Your task to perform on an android device: Open calendar and show me the third week of next month Image 0: 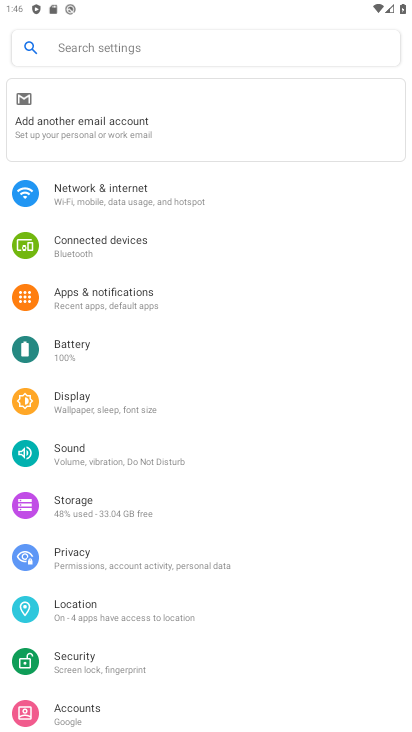
Step 0: press back button
Your task to perform on an android device: Open calendar and show me the third week of next month Image 1: 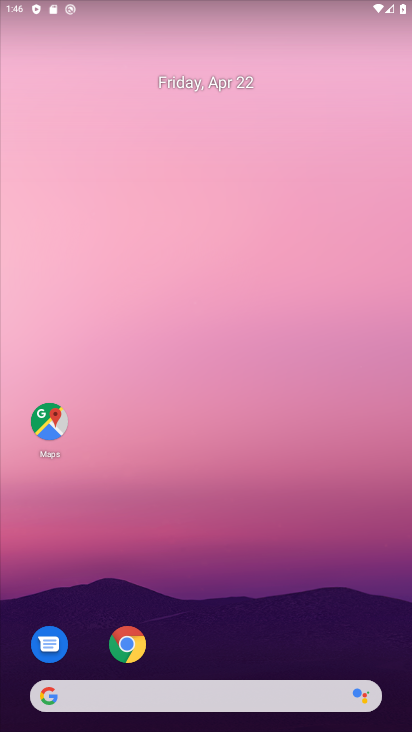
Step 1: drag from (251, 587) to (180, 170)
Your task to perform on an android device: Open calendar and show me the third week of next month Image 2: 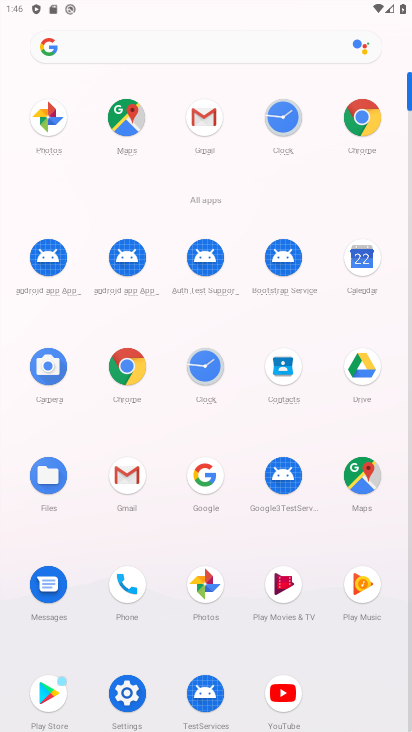
Step 2: click (365, 271)
Your task to perform on an android device: Open calendar and show me the third week of next month Image 3: 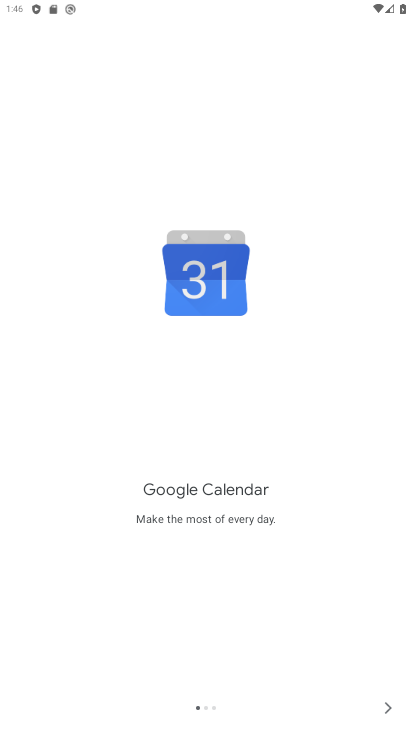
Step 3: click (390, 712)
Your task to perform on an android device: Open calendar and show me the third week of next month Image 4: 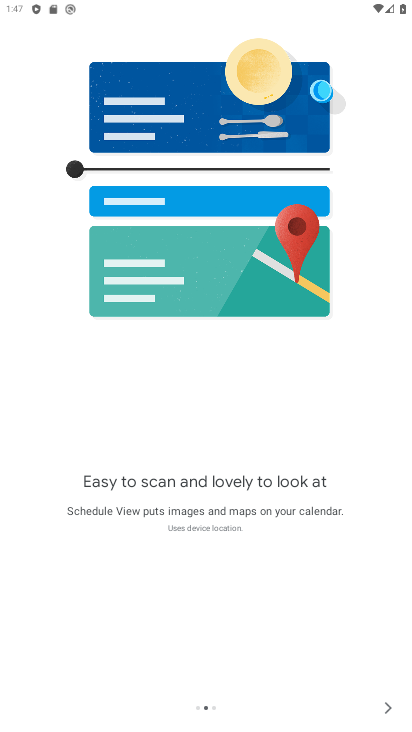
Step 4: click (385, 710)
Your task to perform on an android device: Open calendar and show me the third week of next month Image 5: 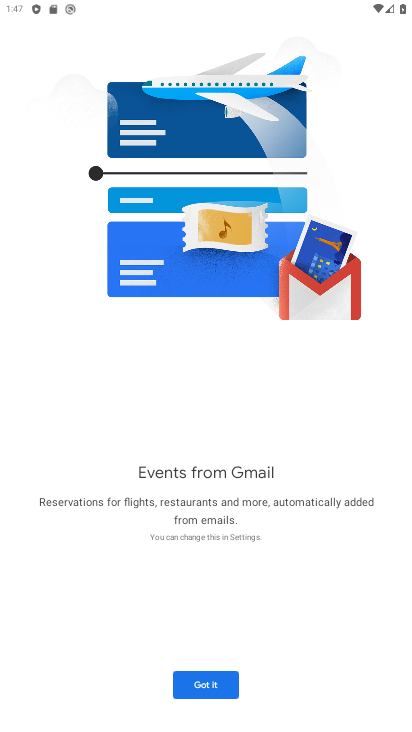
Step 5: click (209, 673)
Your task to perform on an android device: Open calendar and show me the third week of next month Image 6: 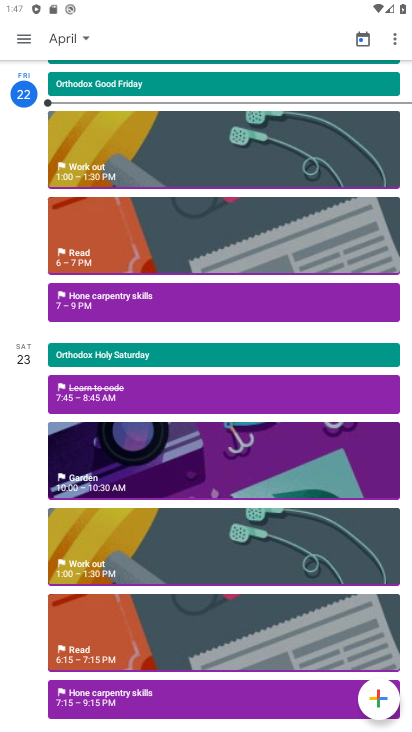
Step 6: click (23, 40)
Your task to perform on an android device: Open calendar and show me the third week of next month Image 7: 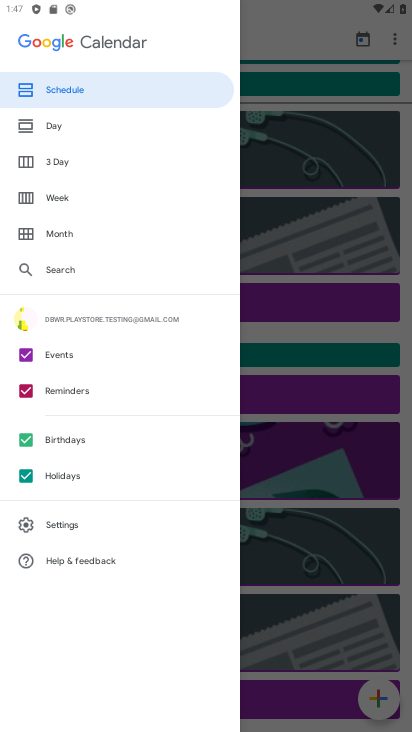
Step 7: click (66, 205)
Your task to perform on an android device: Open calendar and show me the third week of next month Image 8: 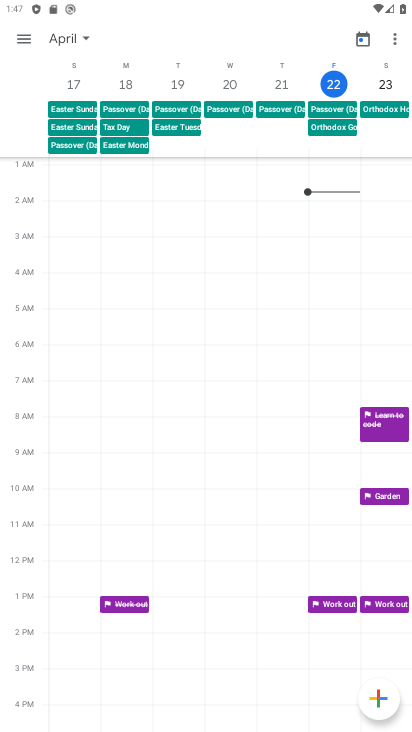
Step 8: click (72, 40)
Your task to perform on an android device: Open calendar and show me the third week of next month Image 9: 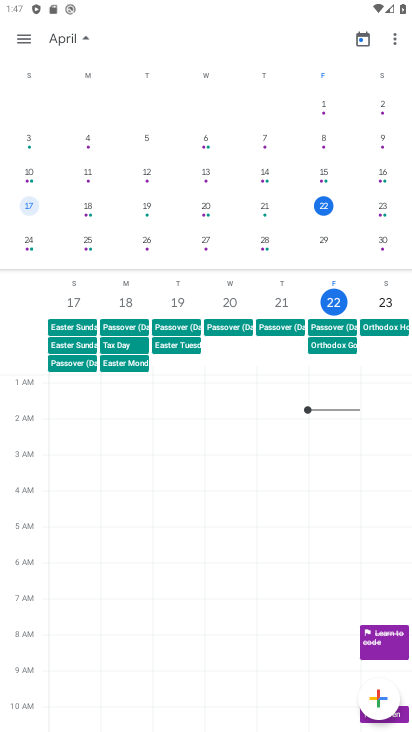
Step 9: drag from (361, 183) to (0, 156)
Your task to perform on an android device: Open calendar and show me the third week of next month Image 10: 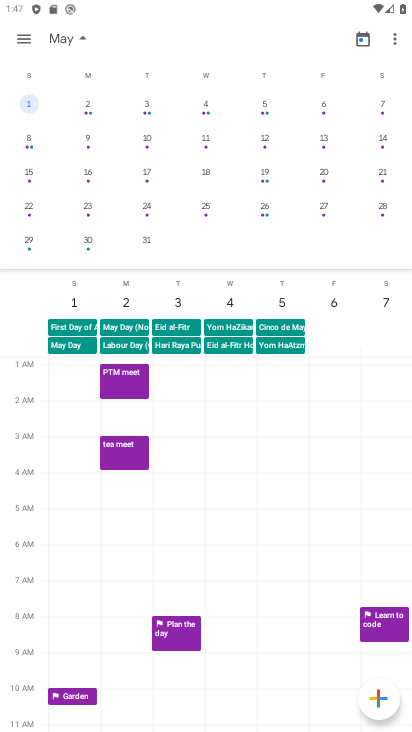
Step 10: click (31, 175)
Your task to perform on an android device: Open calendar and show me the third week of next month Image 11: 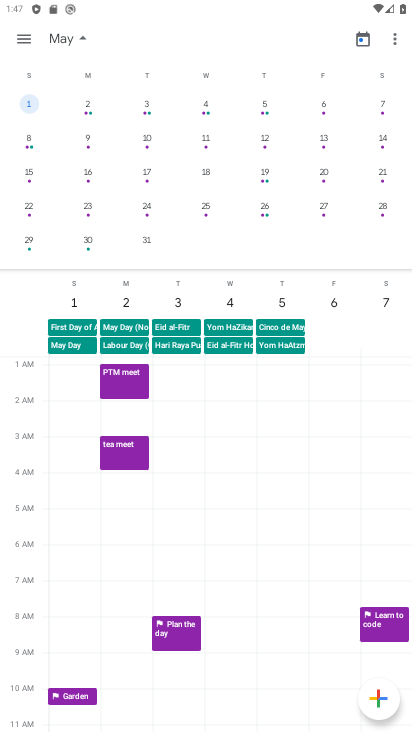
Step 11: click (29, 177)
Your task to perform on an android device: Open calendar and show me the third week of next month Image 12: 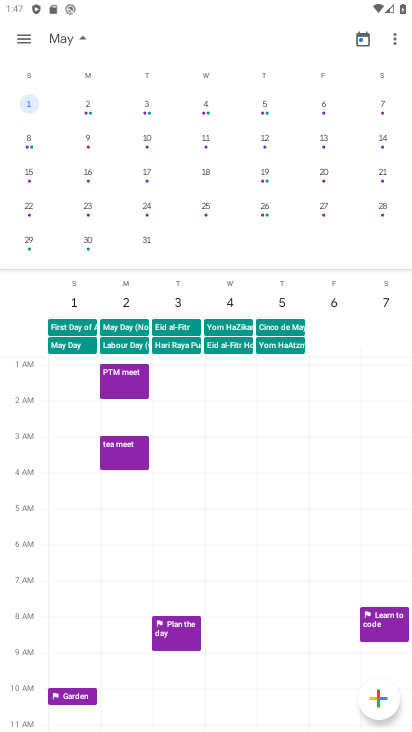
Step 12: click (29, 172)
Your task to perform on an android device: Open calendar and show me the third week of next month Image 13: 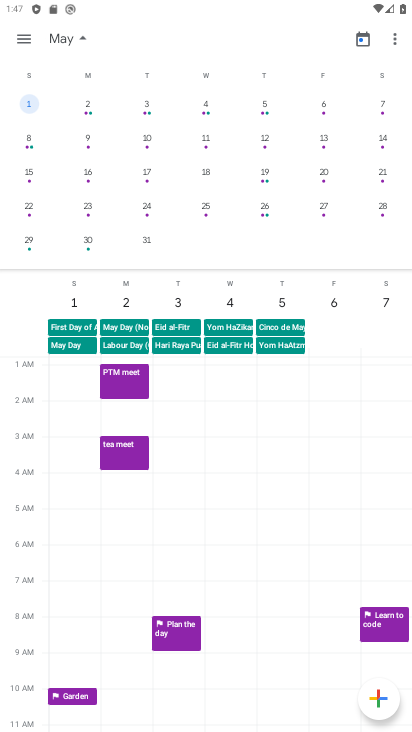
Step 13: click (33, 172)
Your task to perform on an android device: Open calendar and show me the third week of next month Image 14: 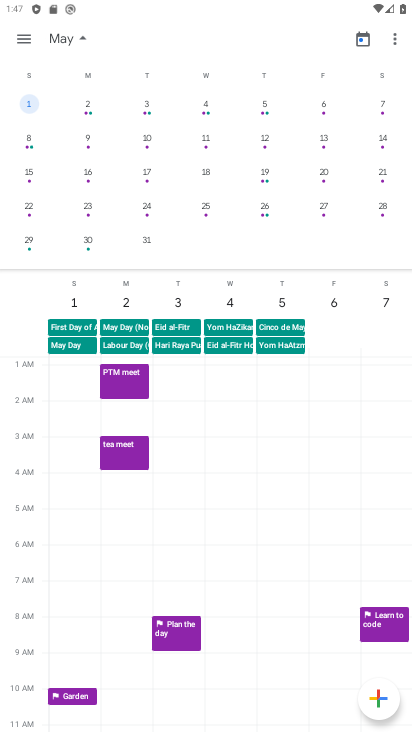
Step 14: click (33, 178)
Your task to perform on an android device: Open calendar and show me the third week of next month Image 15: 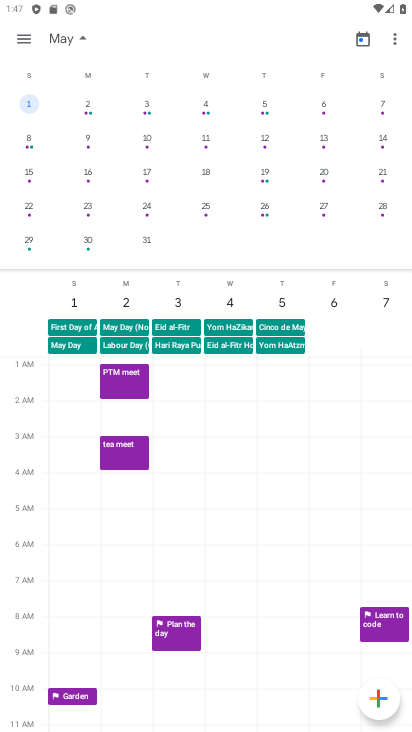
Step 15: click (26, 173)
Your task to perform on an android device: Open calendar and show me the third week of next month Image 16: 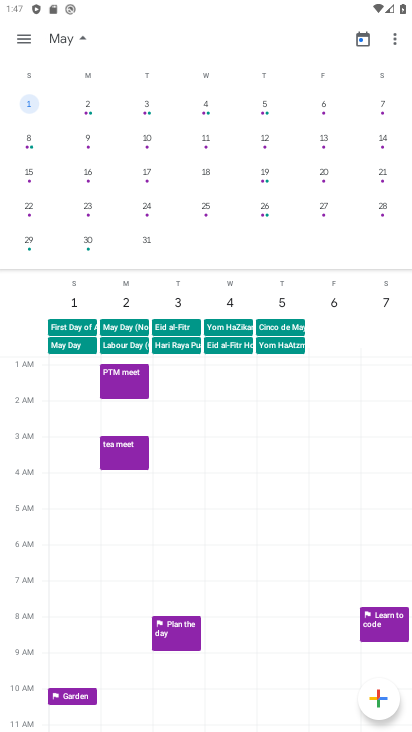
Step 16: click (33, 173)
Your task to perform on an android device: Open calendar and show me the third week of next month Image 17: 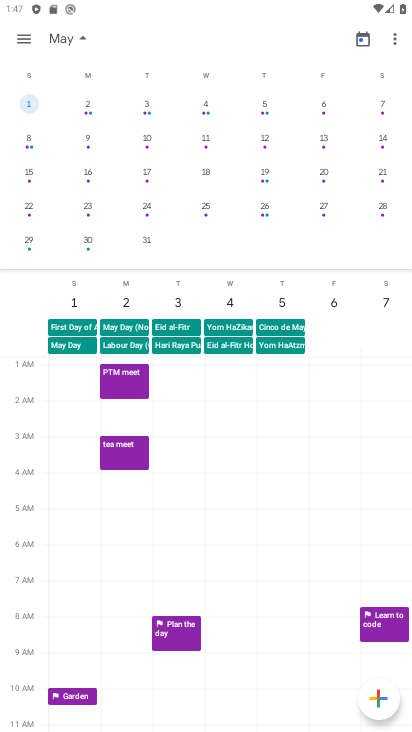
Step 17: click (33, 173)
Your task to perform on an android device: Open calendar and show me the third week of next month Image 18: 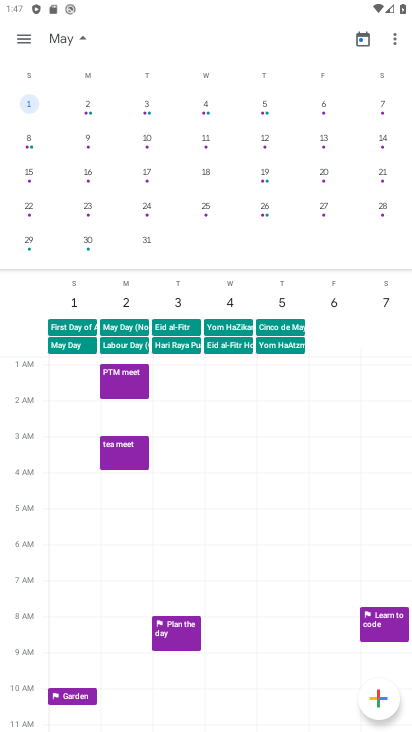
Step 18: click (28, 179)
Your task to perform on an android device: Open calendar and show me the third week of next month Image 19: 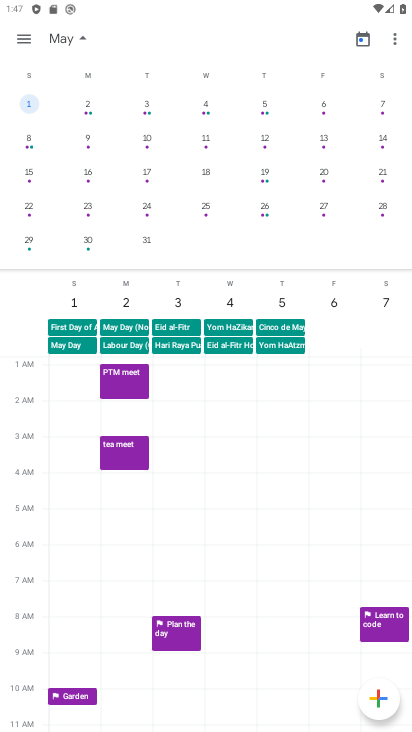
Step 19: click (28, 179)
Your task to perform on an android device: Open calendar and show me the third week of next month Image 20: 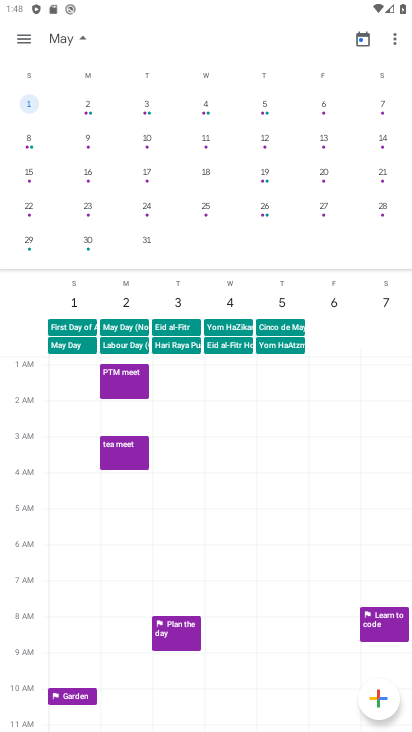
Step 20: click (28, 171)
Your task to perform on an android device: Open calendar and show me the third week of next month Image 21: 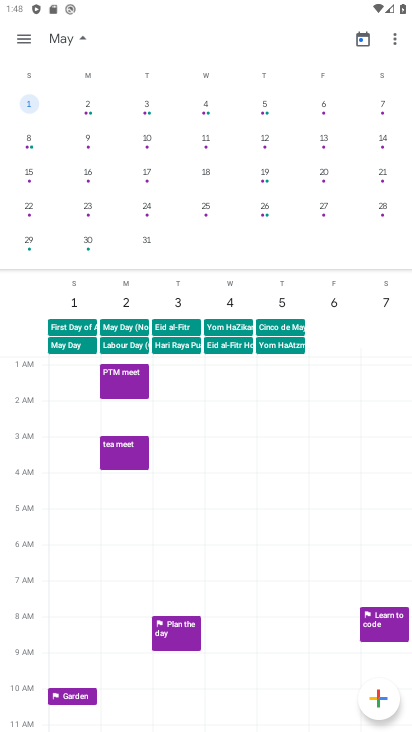
Step 21: click (28, 171)
Your task to perform on an android device: Open calendar and show me the third week of next month Image 22: 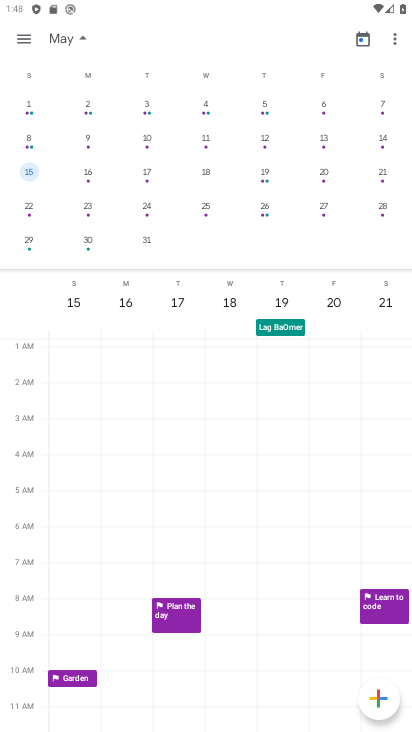
Step 22: task complete